Your task to perform on an android device: Show me popular games on the Play Store Image 0: 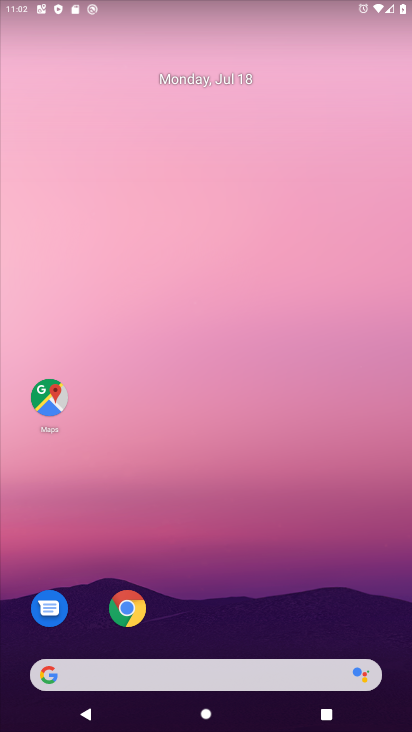
Step 0: drag from (222, 588) to (231, 55)
Your task to perform on an android device: Show me popular games on the Play Store Image 1: 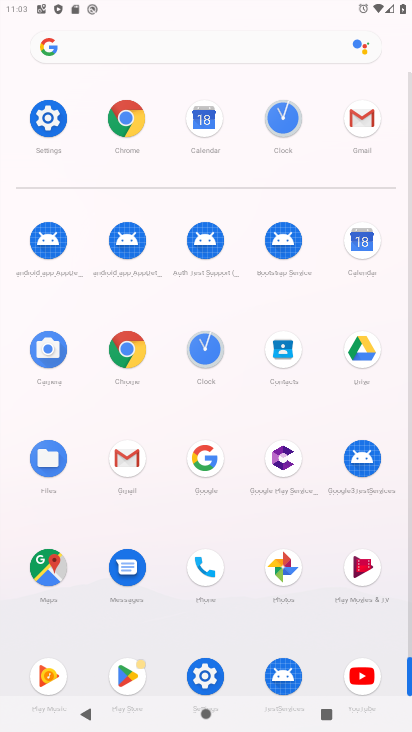
Step 1: click (124, 672)
Your task to perform on an android device: Show me popular games on the Play Store Image 2: 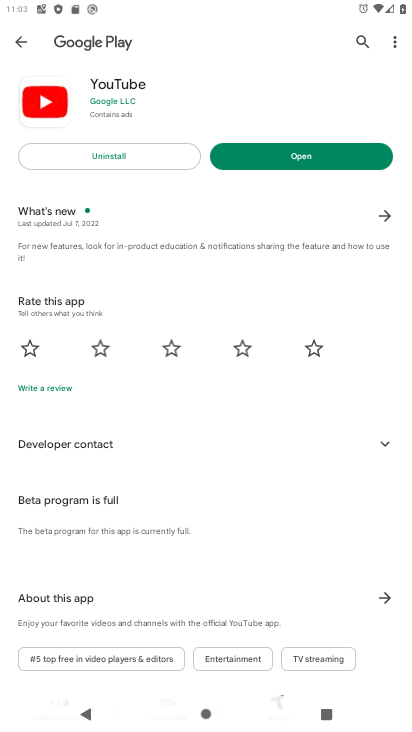
Step 2: click (23, 35)
Your task to perform on an android device: Show me popular games on the Play Store Image 3: 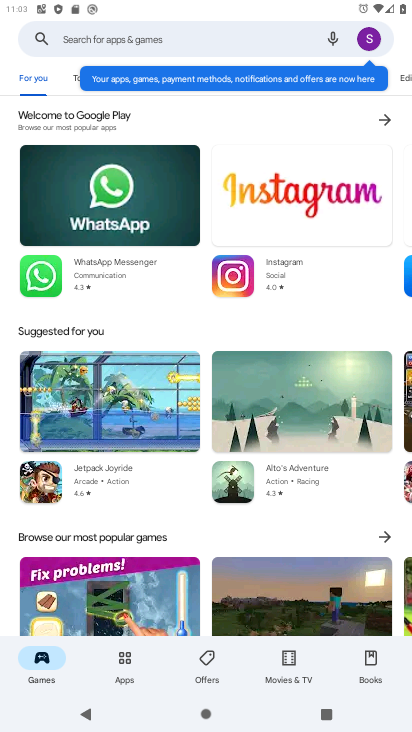
Step 3: click (72, 82)
Your task to perform on an android device: Show me popular games on the Play Store Image 4: 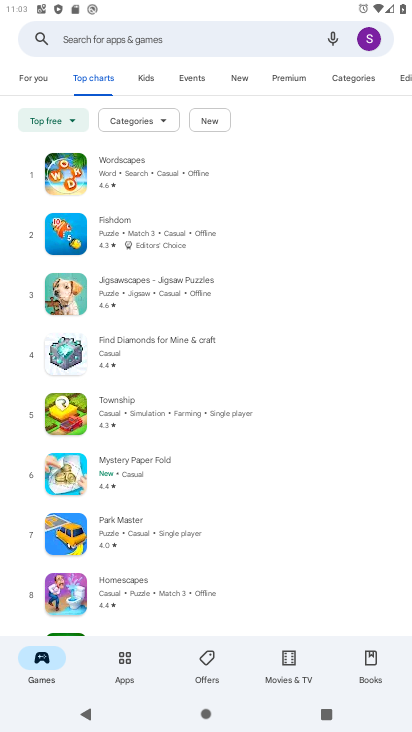
Step 4: task complete